Your task to perform on an android device: delete browsing data in the chrome app Image 0: 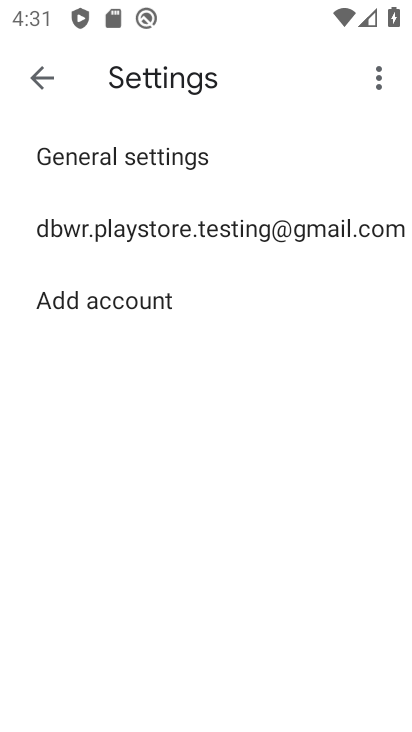
Step 0: press home button
Your task to perform on an android device: delete browsing data in the chrome app Image 1: 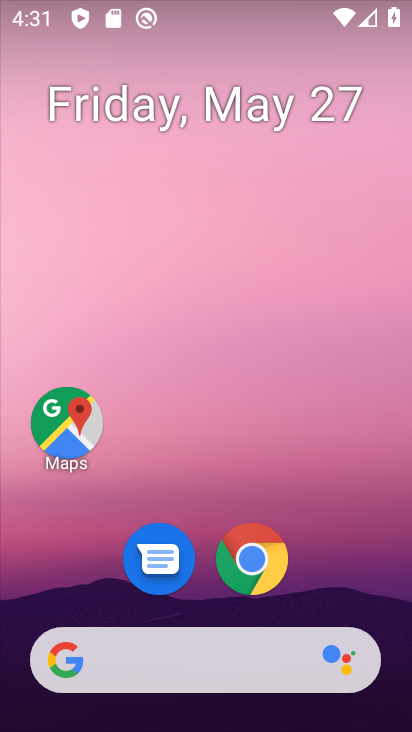
Step 1: click (248, 561)
Your task to perform on an android device: delete browsing data in the chrome app Image 2: 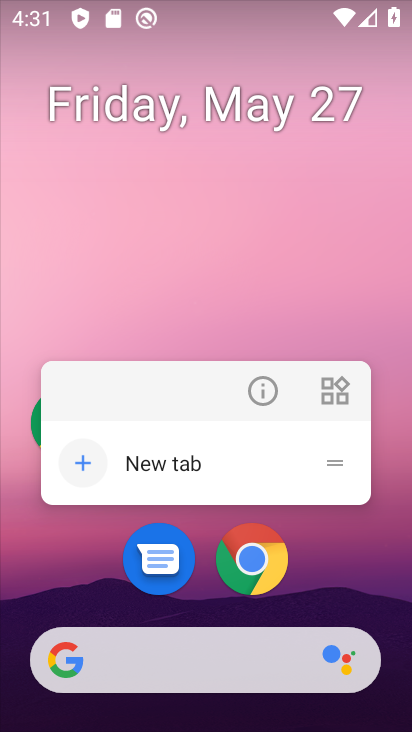
Step 2: click (364, 562)
Your task to perform on an android device: delete browsing data in the chrome app Image 3: 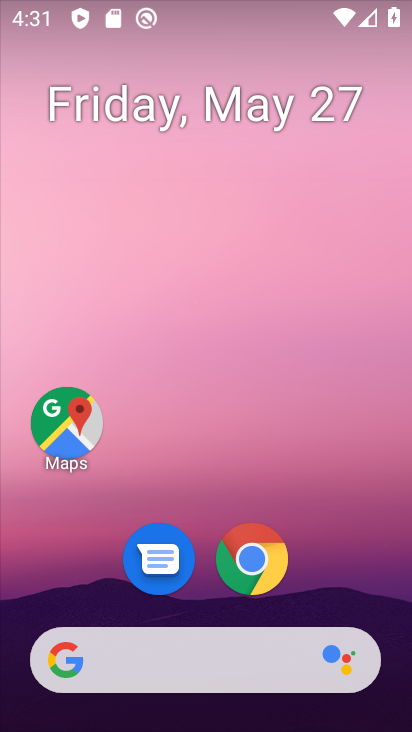
Step 3: click (249, 559)
Your task to perform on an android device: delete browsing data in the chrome app Image 4: 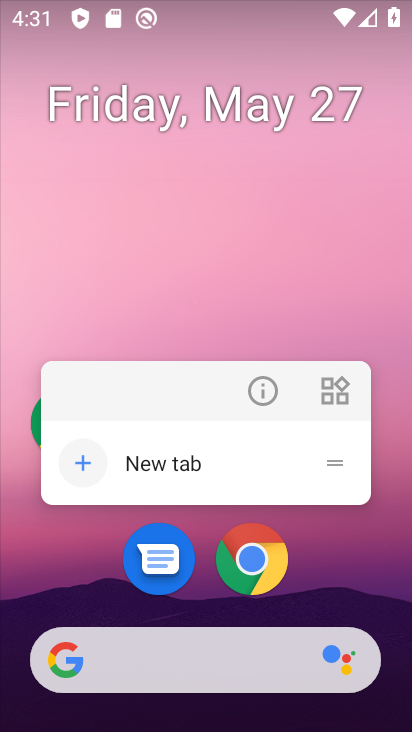
Step 4: click (366, 553)
Your task to perform on an android device: delete browsing data in the chrome app Image 5: 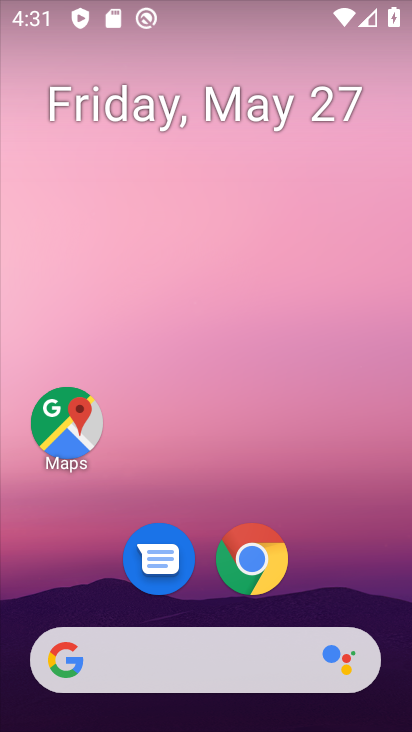
Step 5: click (245, 559)
Your task to perform on an android device: delete browsing data in the chrome app Image 6: 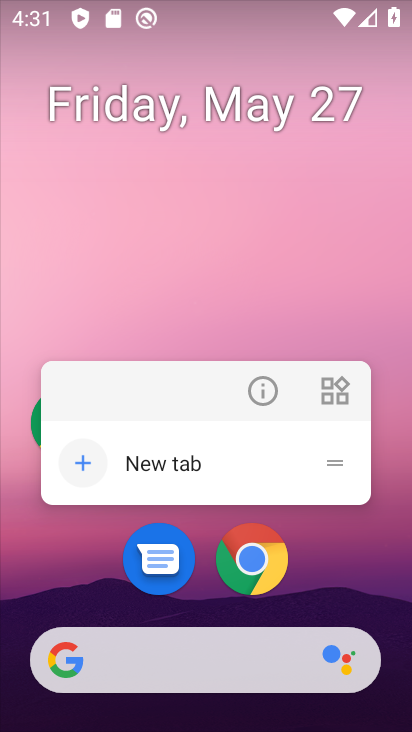
Step 6: click (364, 544)
Your task to perform on an android device: delete browsing data in the chrome app Image 7: 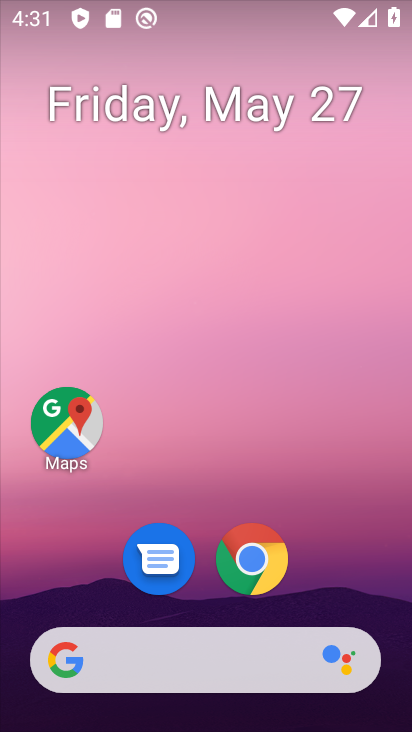
Step 7: drag from (363, 485) to (363, 102)
Your task to perform on an android device: delete browsing data in the chrome app Image 8: 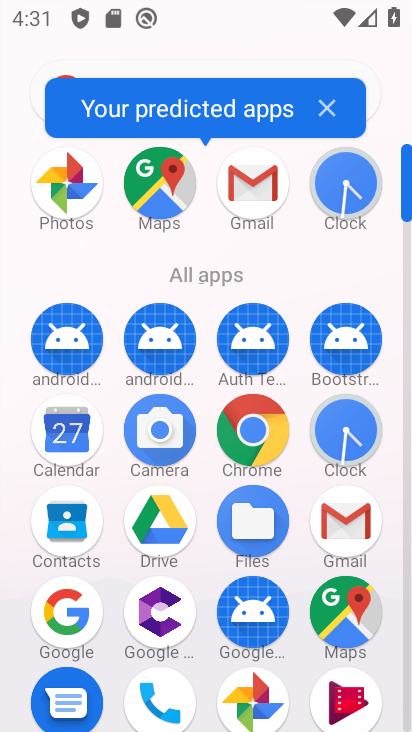
Step 8: click (257, 426)
Your task to perform on an android device: delete browsing data in the chrome app Image 9: 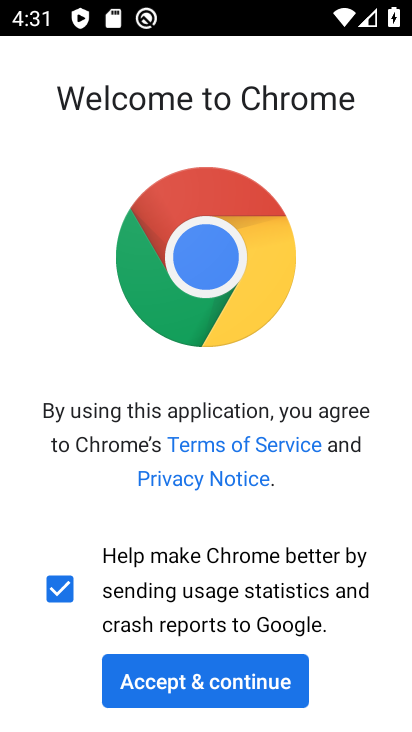
Step 9: click (226, 688)
Your task to perform on an android device: delete browsing data in the chrome app Image 10: 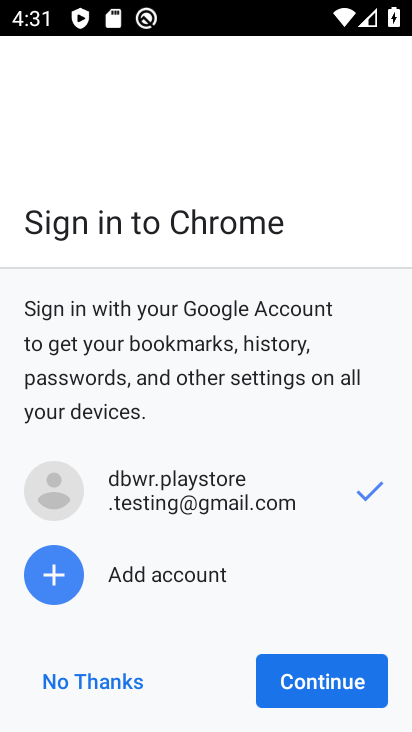
Step 10: click (226, 688)
Your task to perform on an android device: delete browsing data in the chrome app Image 11: 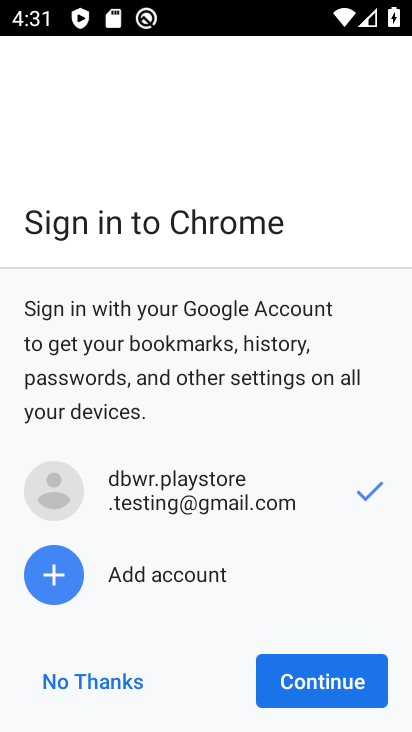
Step 11: click (282, 673)
Your task to perform on an android device: delete browsing data in the chrome app Image 12: 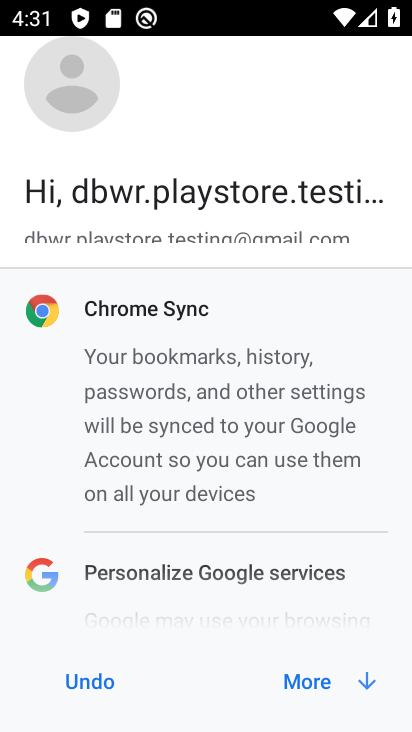
Step 12: click (282, 673)
Your task to perform on an android device: delete browsing data in the chrome app Image 13: 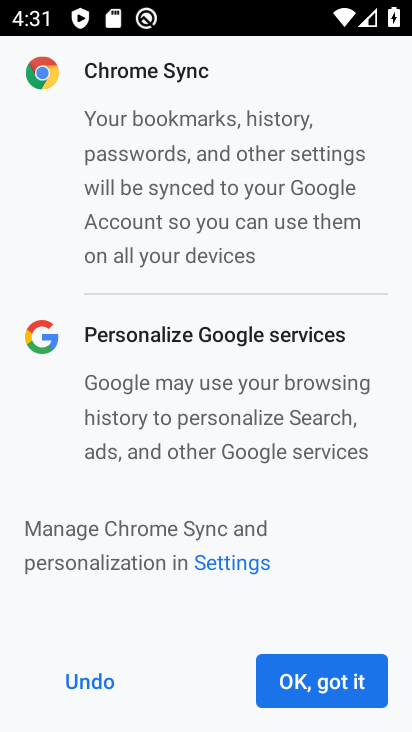
Step 13: click (282, 673)
Your task to perform on an android device: delete browsing data in the chrome app Image 14: 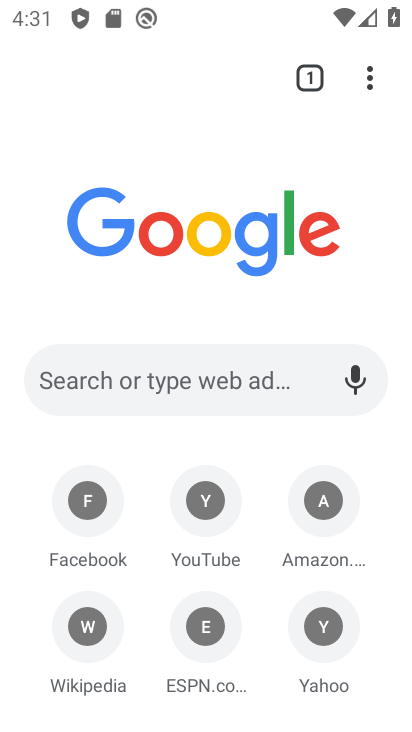
Step 14: drag from (354, 75) to (258, 578)
Your task to perform on an android device: delete browsing data in the chrome app Image 15: 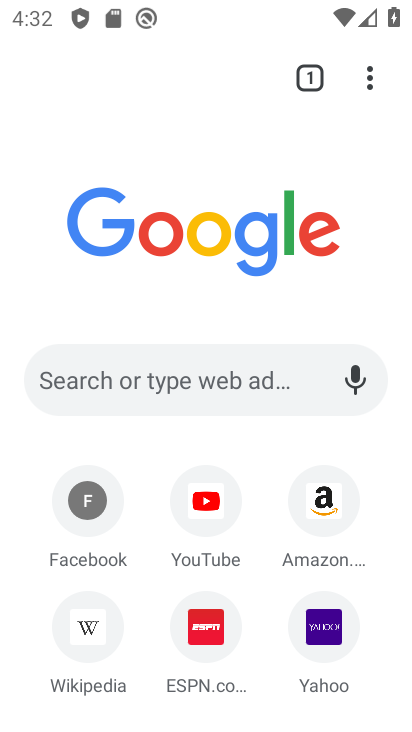
Step 15: drag from (370, 76) to (226, 618)
Your task to perform on an android device: delete browsing data in the chrome app Image 16: 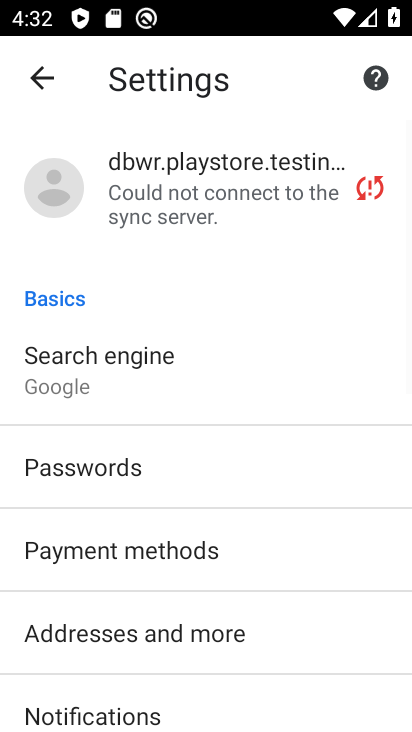
Step 16: drag from (290, 625) to (299, 328)
Your task to perform on an android device: delete browsing data in the chrome app Image 17: 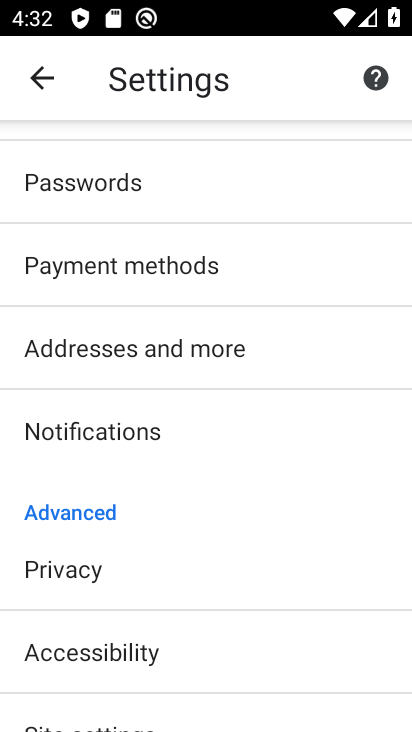
Step 17: click (68, 566)
Your task to perform on an android device: delete browsing data in the chrome app Image 18: 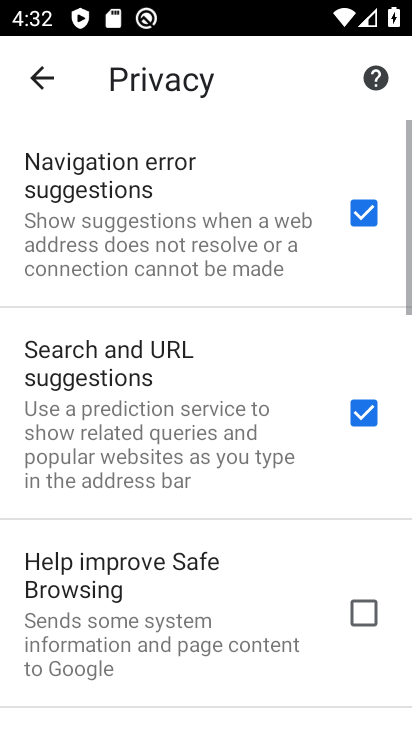
Step 18: drag from (282, 565) to (313, 173)
Your task to perform on an android device: delete browsing data in the chrome app Image 19: 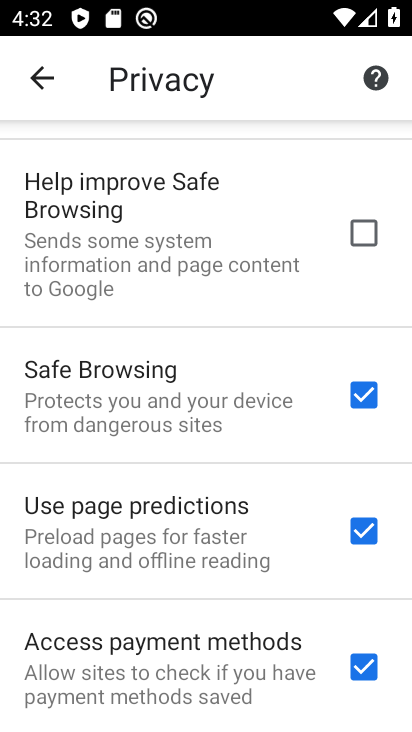
Step 19: drag from (288, 593) to (271, 208)
Your task to perform on an android device: delete browsing data in the chrome app Image 20: 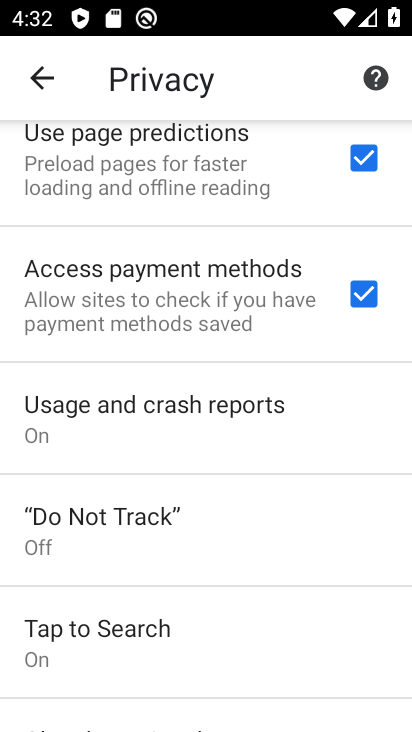
Step 20: drag from (318, 530) to (294, 165)
Your task to perform on an android device: delete browsing data in the chrome app Image 21: 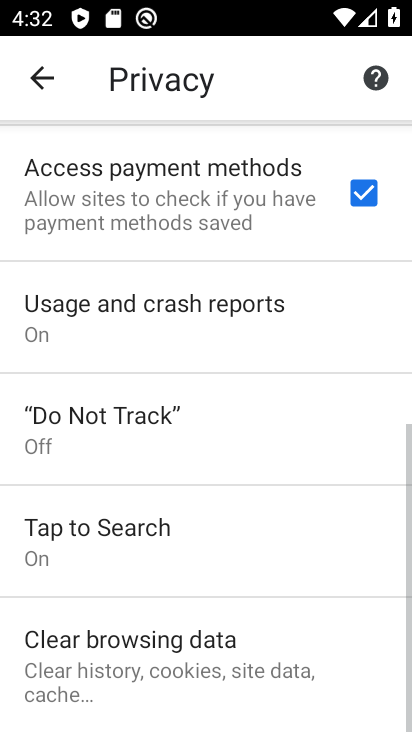
Step 21: click (202, 639)
Your task to perform on an android device: delete browsing data in the chrome app Image 22: 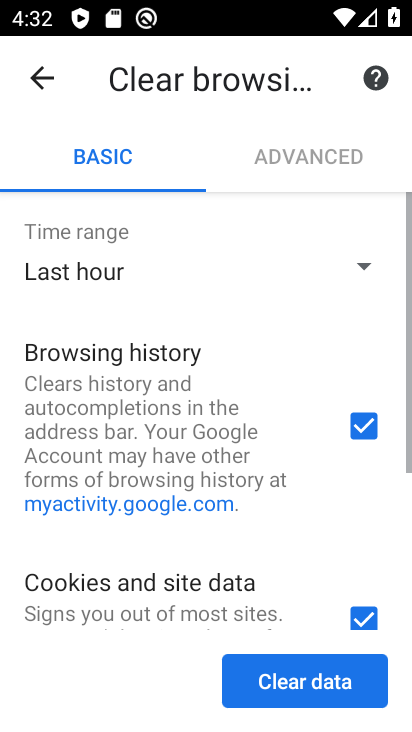
Step 22: click (326, 680)
Your task to perform on an android device: delete browsing data in the chrome app Image 23: 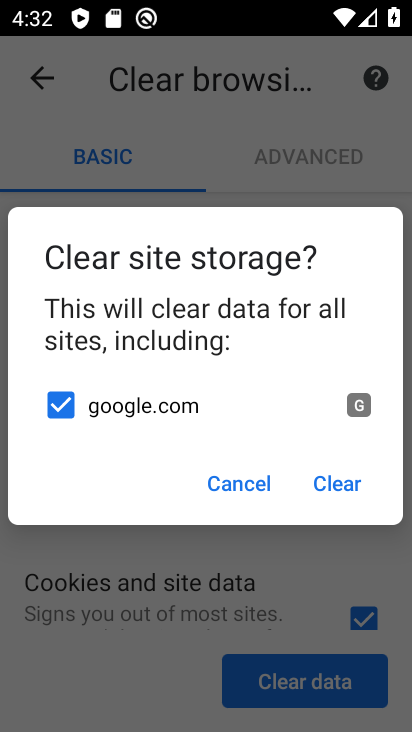
Step 23: click (330, 485)
Your task to perform on an android device: delete browsing data in the chrome app Image 24: 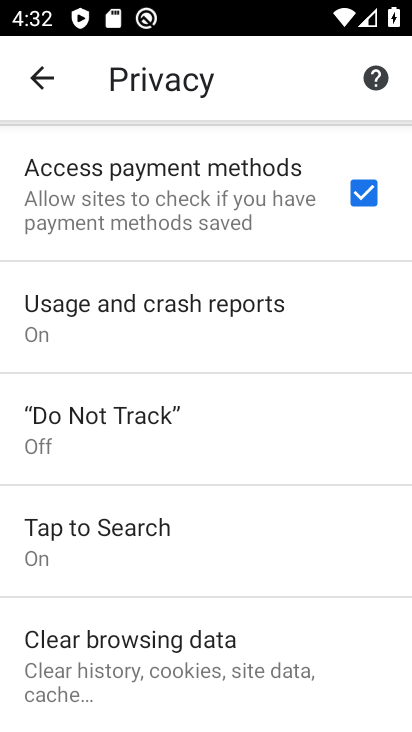
Step 24: task complete